Your task to perform on an android device: Add logitech g502 to the cart on newegg, then select checkout. Image 0: 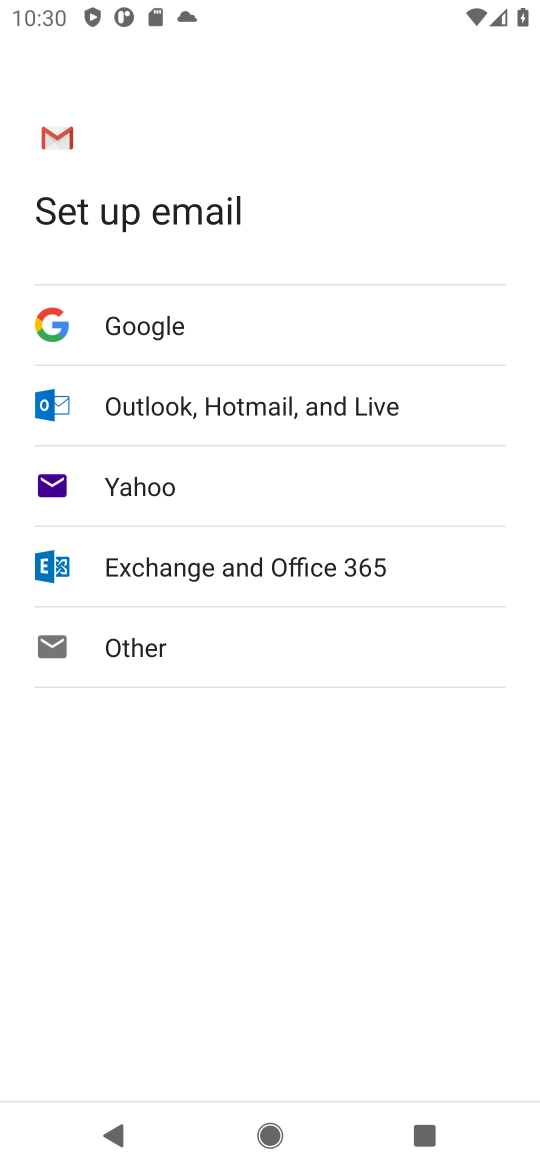
Step 0: press home button
Your task to perform on an android device: Add logitech g502 to the cart on newegg, then select checkout. Image 1: 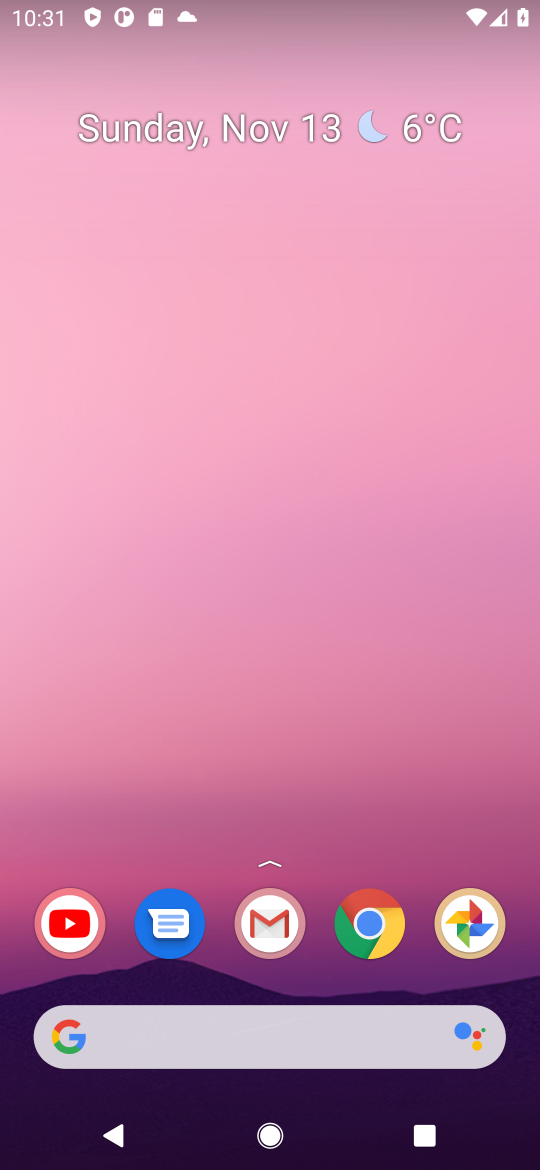
Step 1: click (373, 926)
Your task to perform on an android device: Add logitech g502 to the cart on newegg, then select checkout. Image 2: 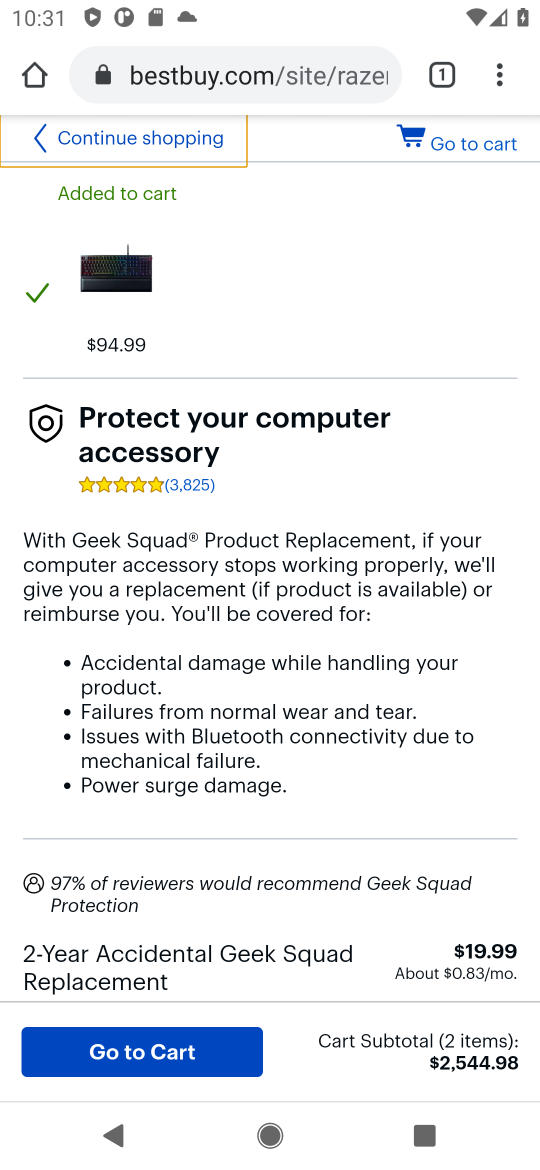
Step 2: click (214, 76)
Your task to perform on an android device: Add logitech g502 to the cart on newegg, then select checkout. Image 3: 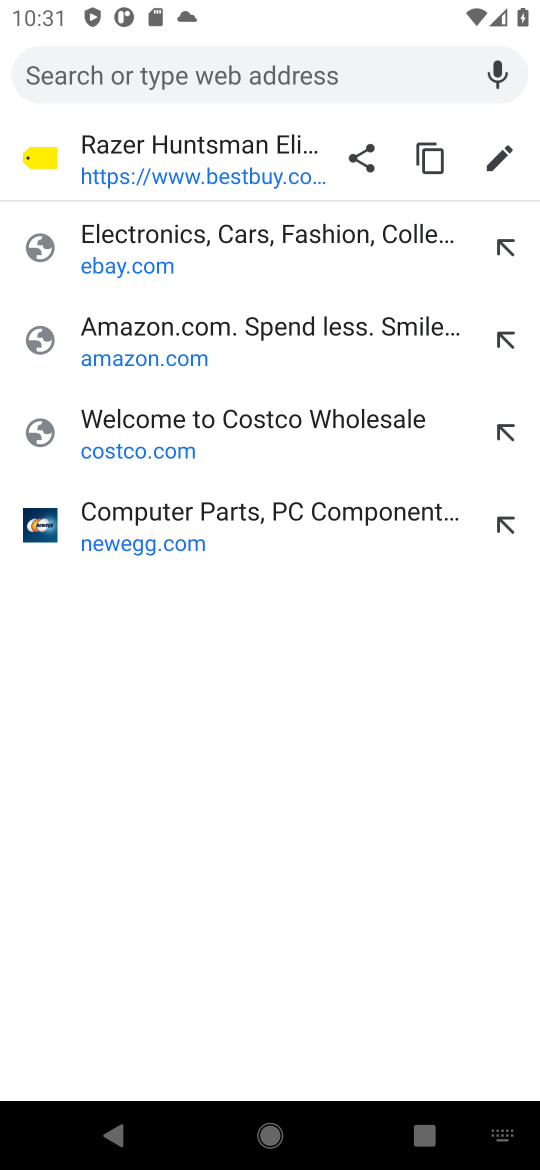
Step 3: type "newegg"
Your task to perform on an android device: Add logitech g502 to the cart on newegg, then select checkout. Image 4: 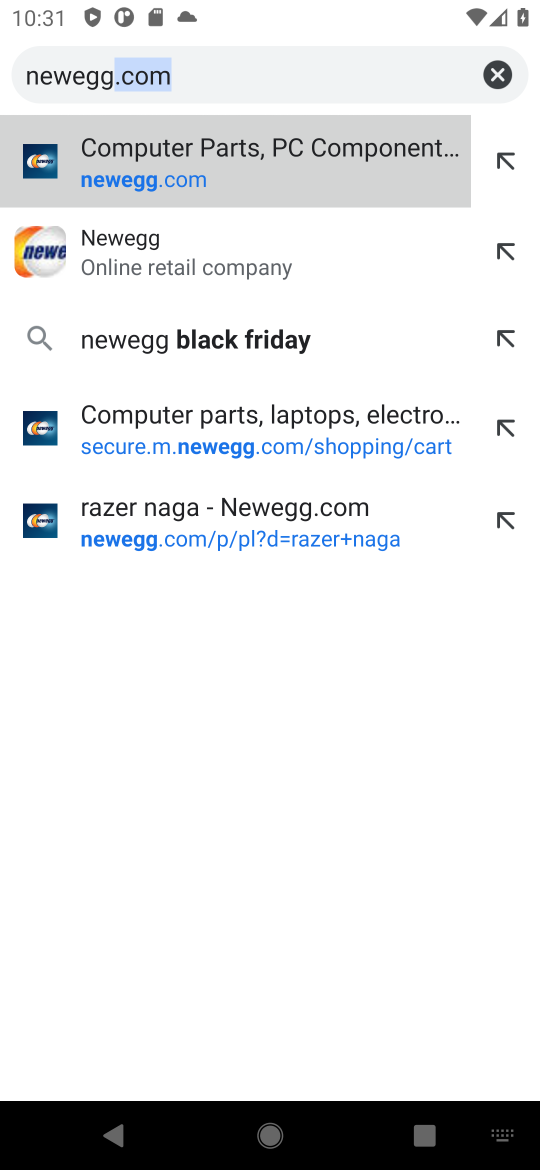
Step 4: press enter
Your task to perform on an android device: Add logitech g502 to the cart on newegg, then select checkout. Image 5: 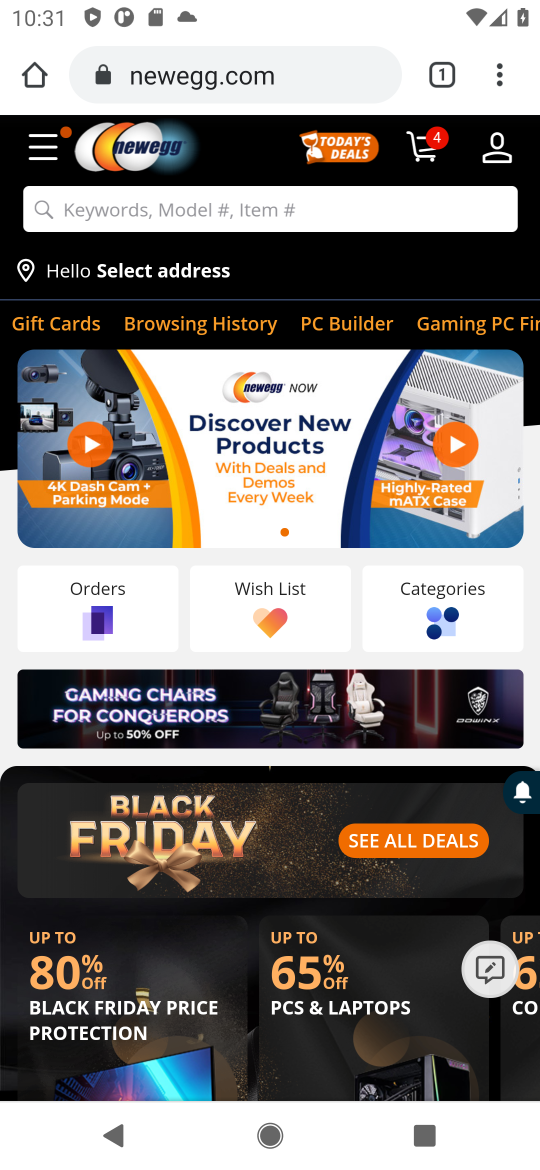
Step 5: click (236, 208)
Your task to perform on an android device: Add logitech g502 to the cart on newegg, then select checkout. Image 6: 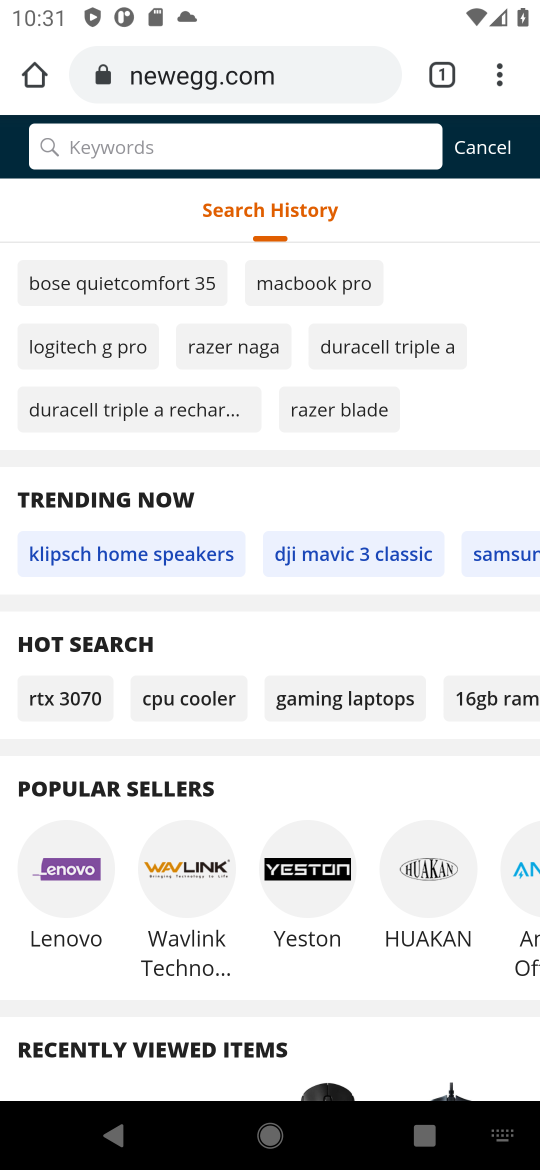
Step 6: type "logitech g502"
Your task to perform on an android device: Add logitech g502 to the cart on newegg, then select checkout. Image 7: 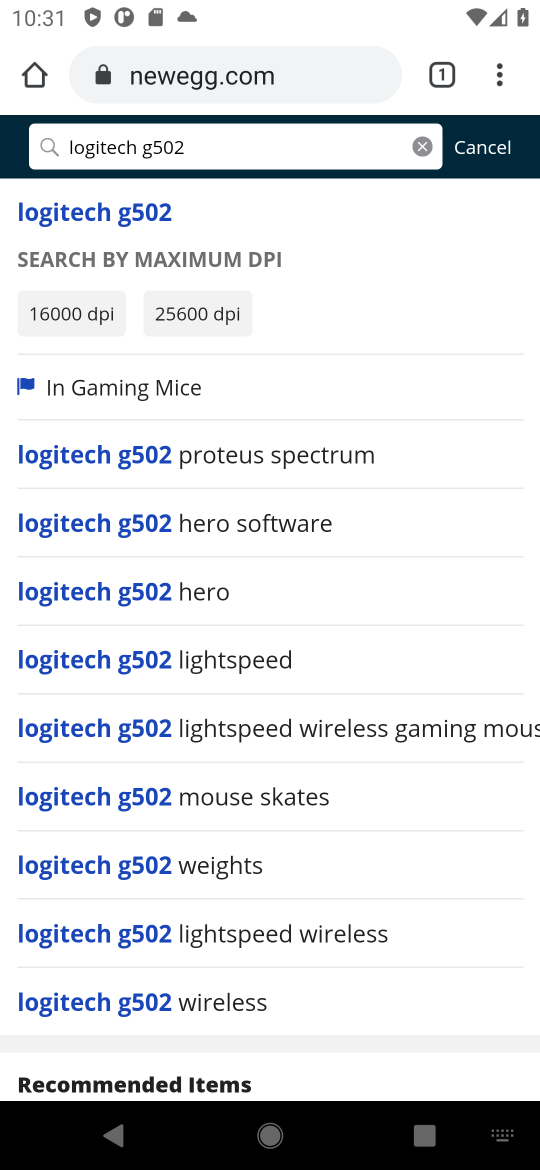
Step 7: press enter
Your task to perform on an android device: Add logitech g502 to the cart on newegg, then select checkout. Image 8: 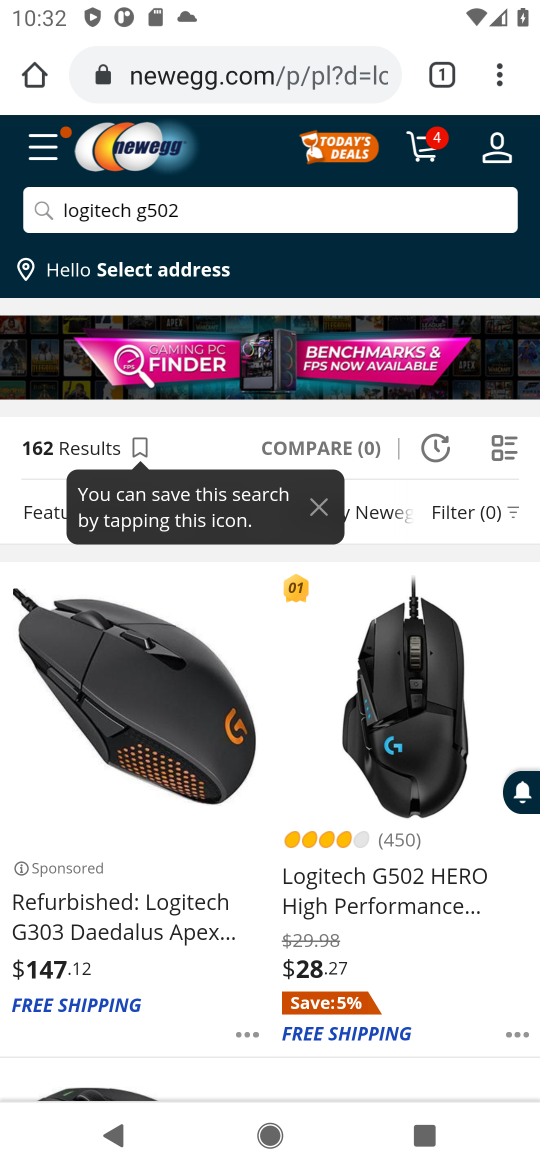
Step 8: click (414, 749)
Your task to perform on an android device: Add logitech g502 to the cart on newegg, then select checkout. Image 9: 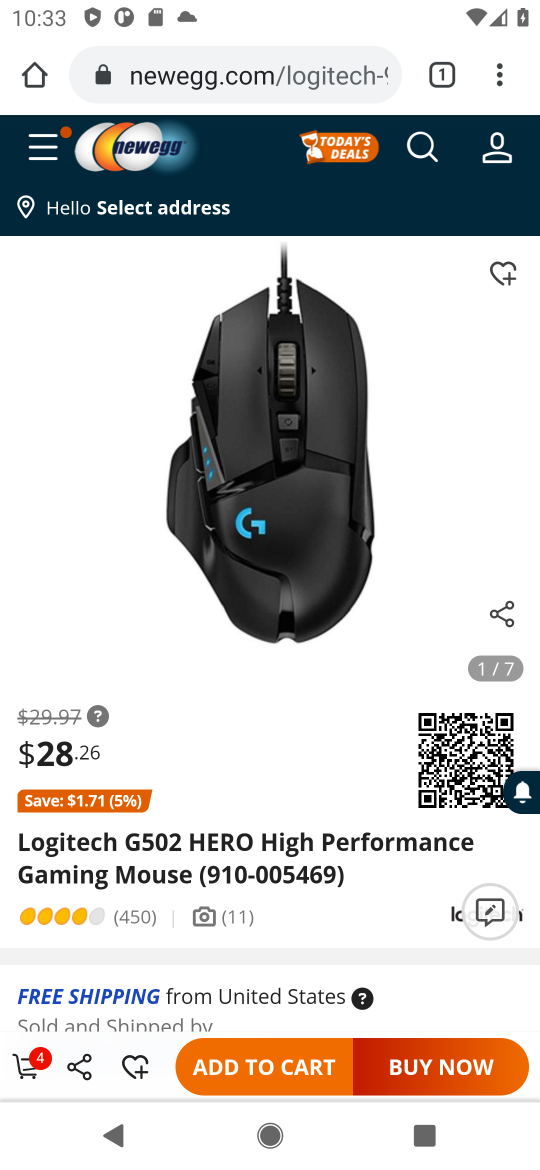
Step 9: click (22, 1067)
Your task to perform on an android device: Add logitech g502 to the cart on newegg, then select checkout. Image 10: 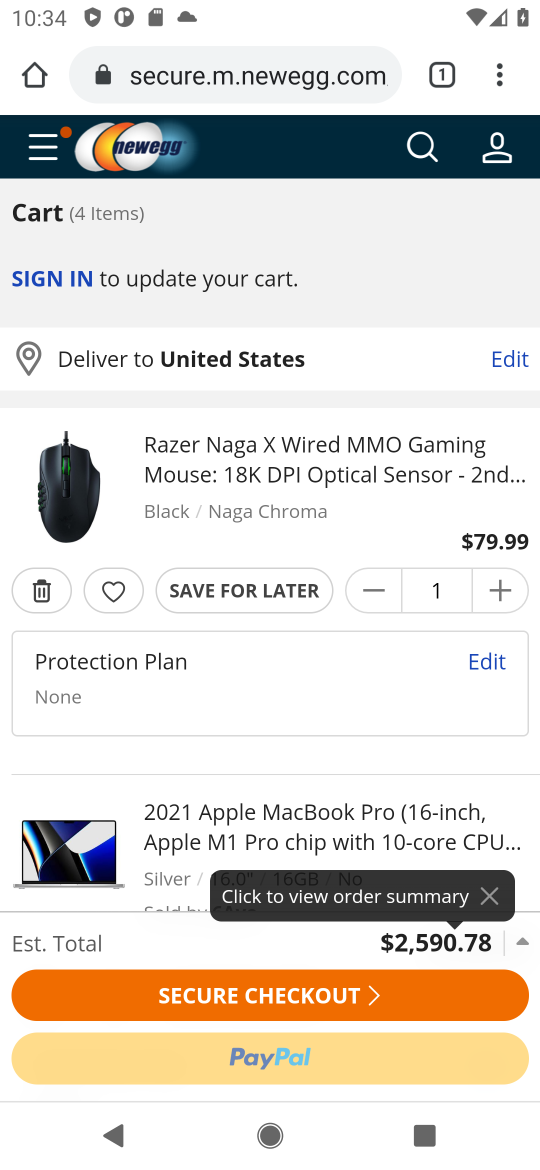
Step 10: drag from (238, 825) to (258, 348)
Your task to perform on an android device: Add logitech g502 to the cart on newegg, then select checkout. Image 11: 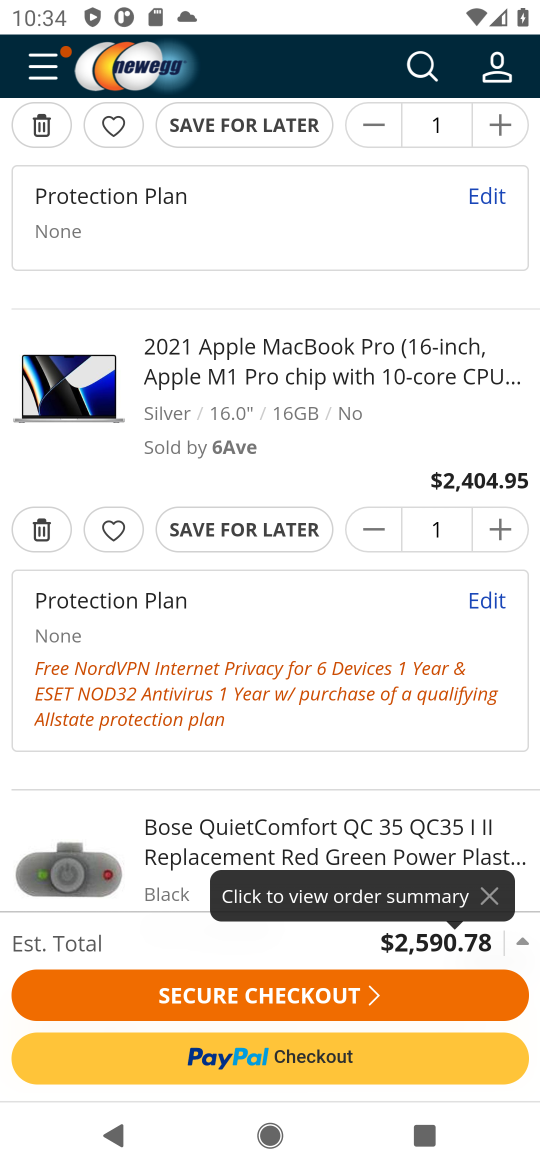
Step 11: click (430, 80)
Your task to perform on an android device: Add logitech g502 to the cart on newegg, then select checkout. Image 12: 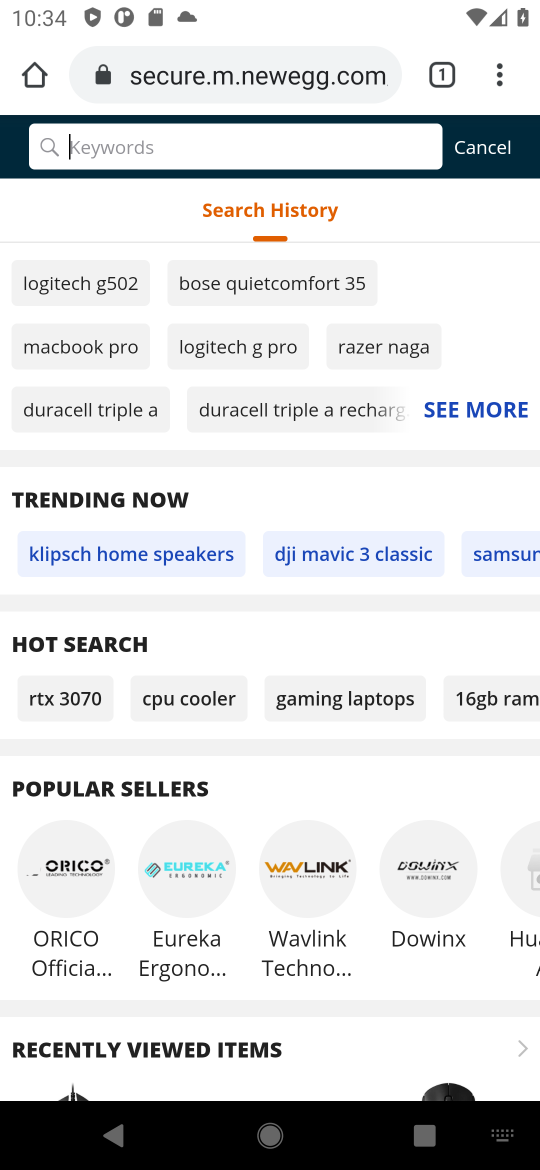
Step 12: type "logitech g502"
Your task to perform on an android device: Add logitech g502 to the cart on newegg, then select checkout. Image 13: 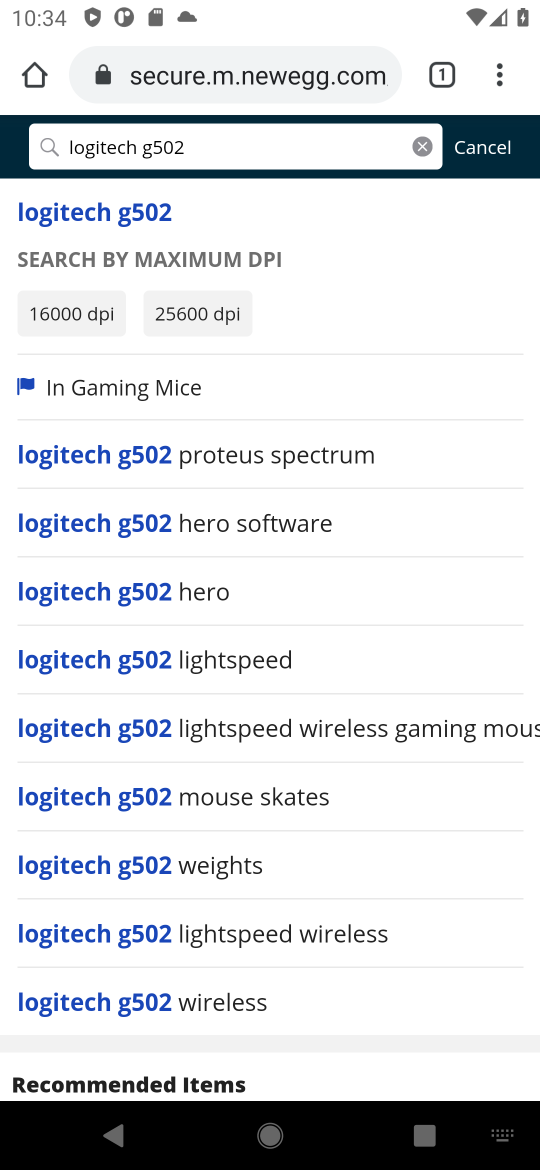
Step 13: press enter
Your task to perform on an android device: Add logitech g502 to the cart on newegg, then select checkout. Image 14: 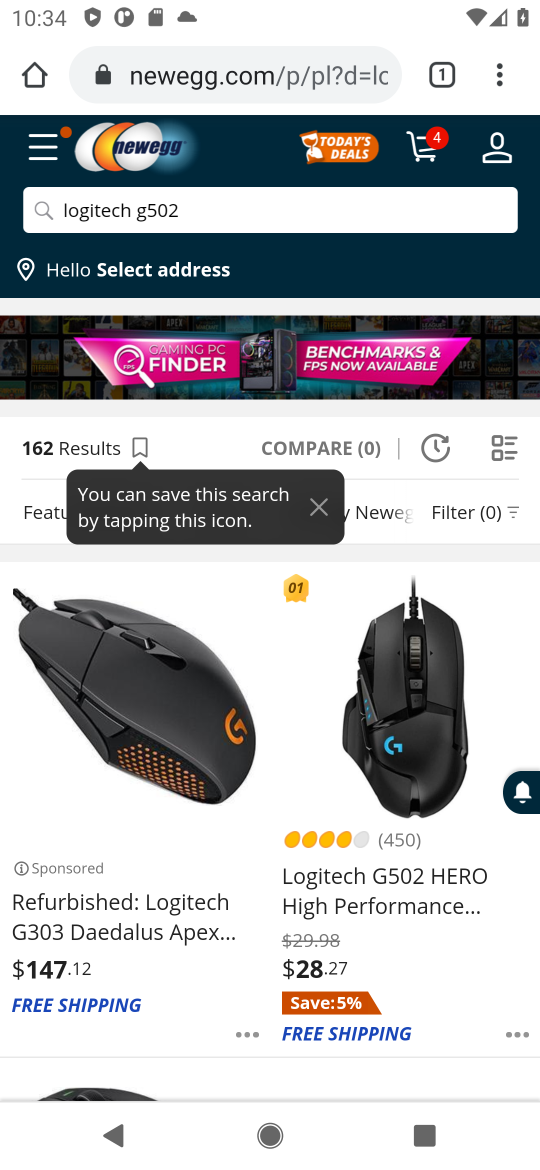
Step 14: click (387, 709)
Your task to perform on an android device: Add logitech g502 to the cart on newegg, then select checkout. Image 15: 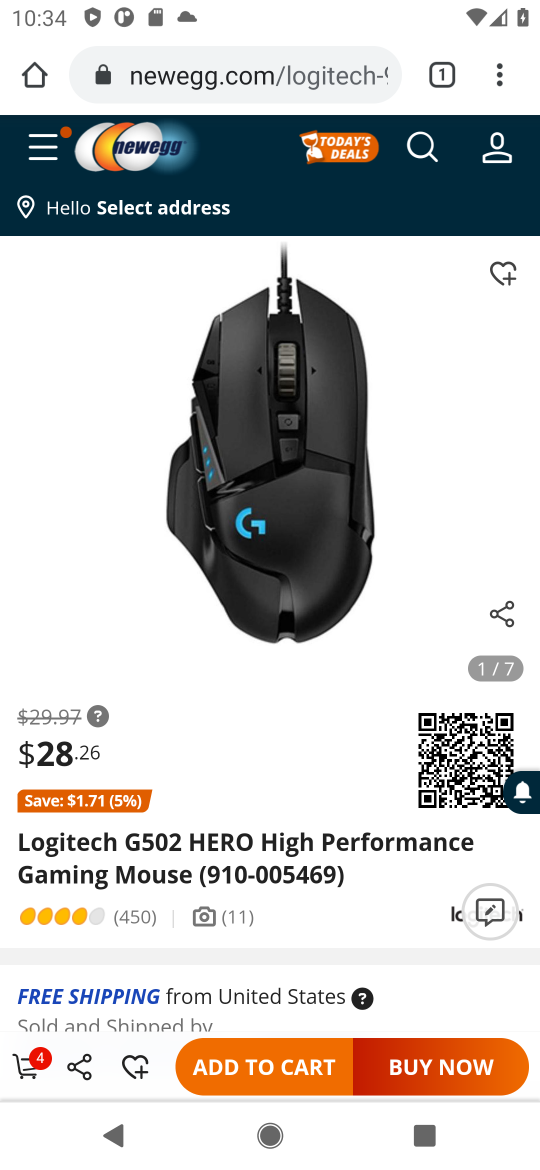
Step 15: click (254, 1070)
Your task to perform on an android device: Add logitech g502 to the cart on newegg, then select checkout. Image 16: 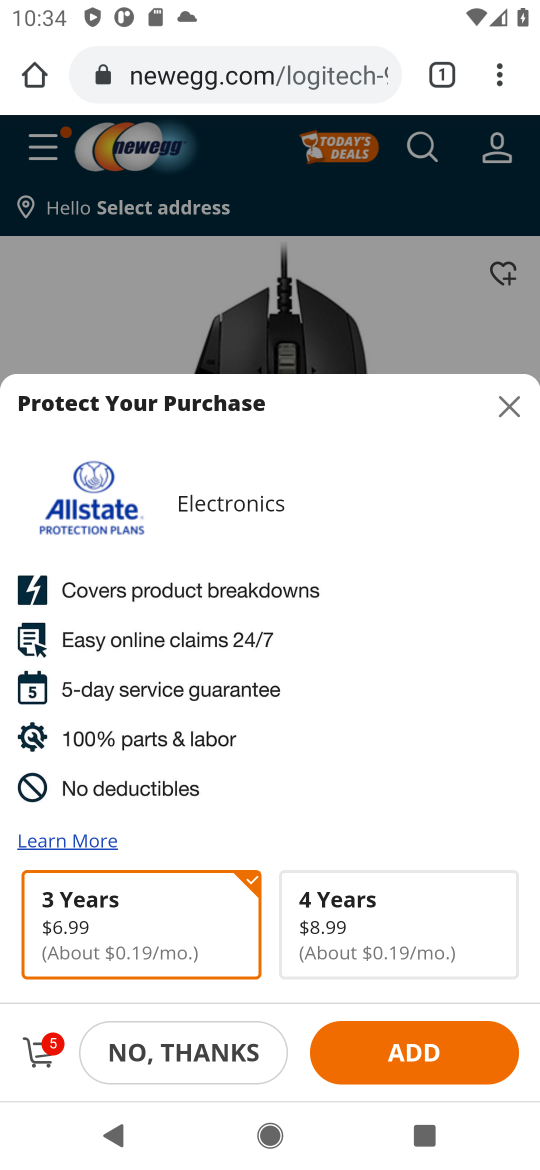
Step 16: click (358, 1056)
Your task to perform on an android device: Add logitech g502 to the cart on newegg, then select checkout. Image 17: 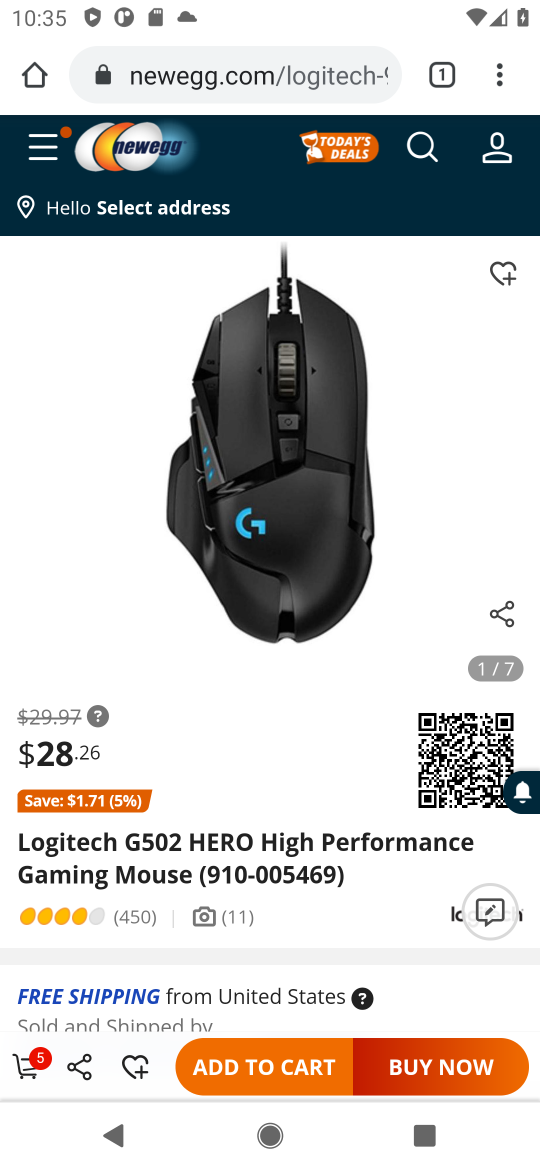
Step 17: click (21, 1077)
Your task to perform on an android device: Add logitech g502 to the cart on newegg, then select checkout. Image 18: 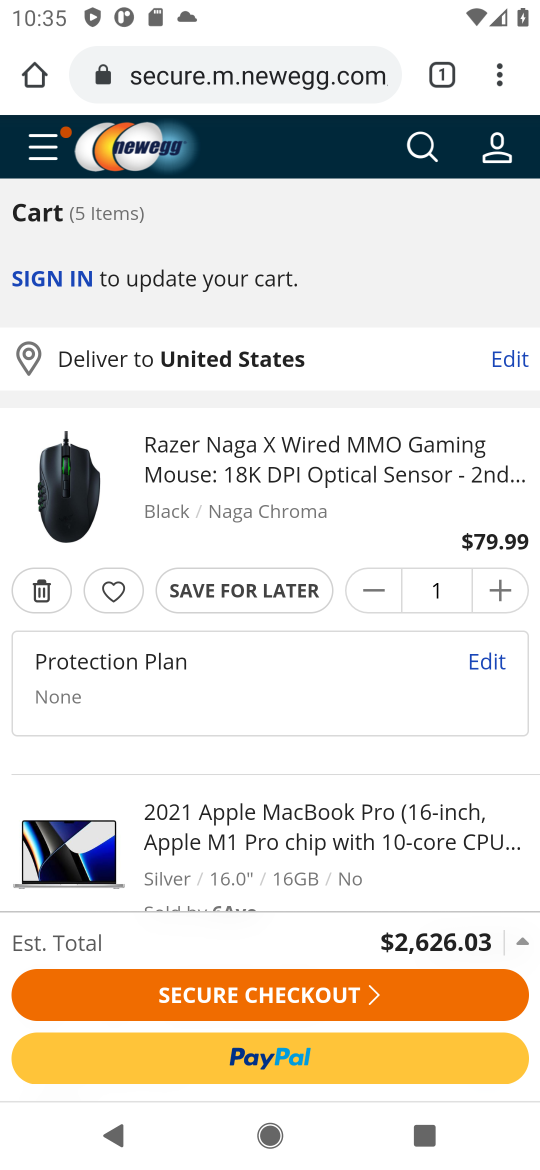
Step 18: click (255, 1010)
Your task to perform on an android device: Add logitech g502 to the cart on newegg, then select checkout. Image 19: 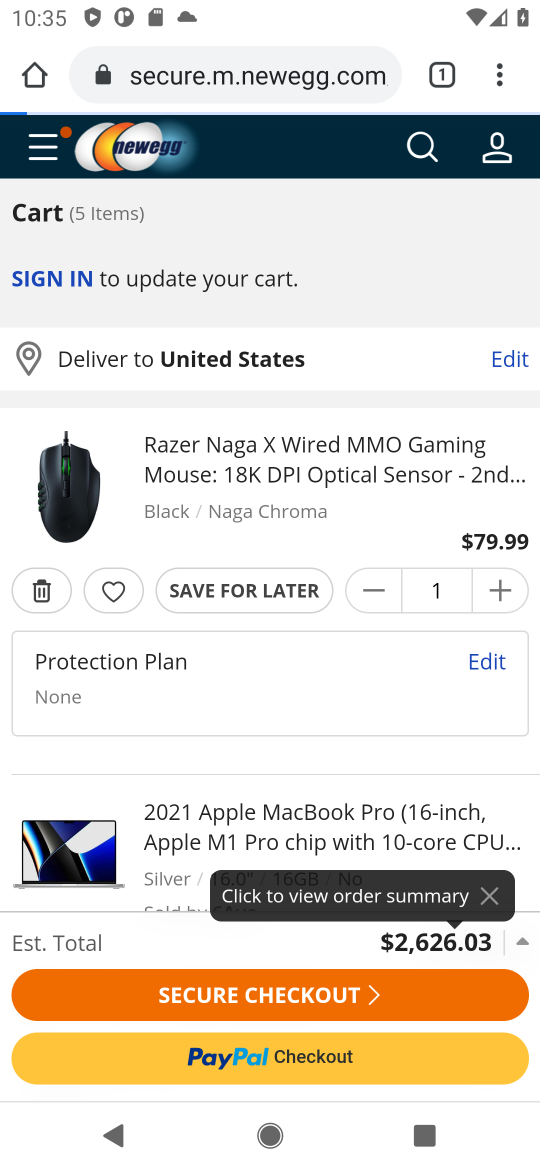
Step 19: task complete